Your task to perform on an android device: install app "Expedia: Hotels, Flights & Car" Image 0: 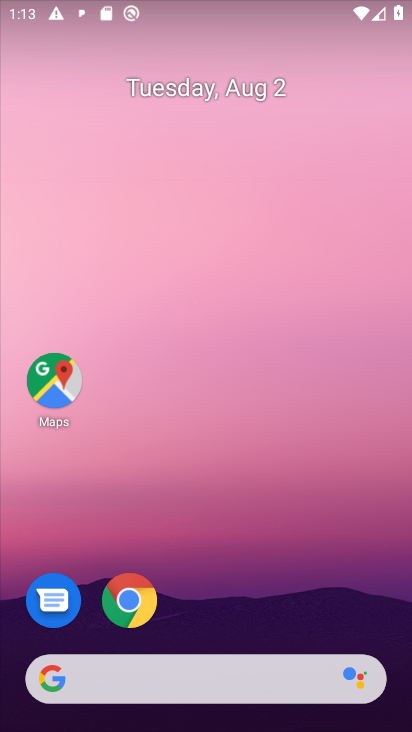
Step 0: drag from (237, 653) to (230, 120)
Your task to perform on an android device: install app "Expedia: Hotels, Flights & Car" Image 1: 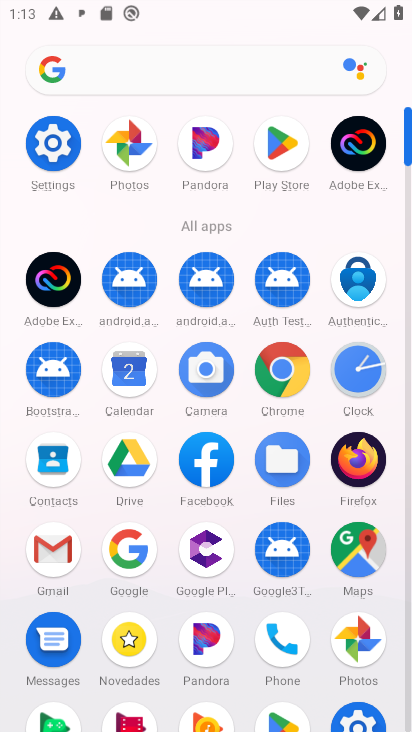
Step 1: click (290, 146)
Your task to perform on an android device: install app "Expedia: Hotels, Flights & Car" Image 2: 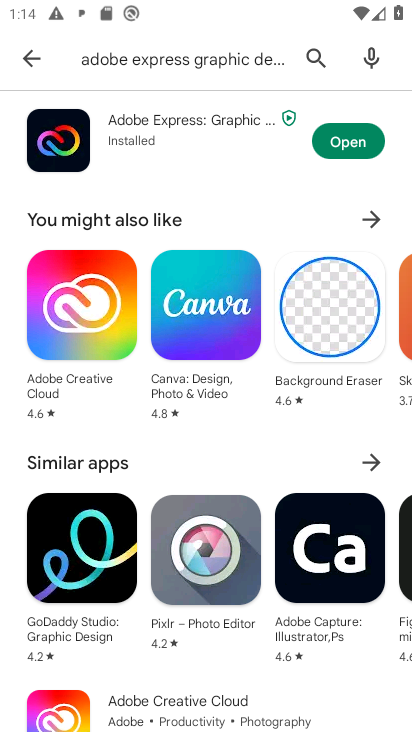
Step 2: click (302, 53)
Your task to perform on an android device: install app "Expedia: Hotels, Flights & Car" Image 3: 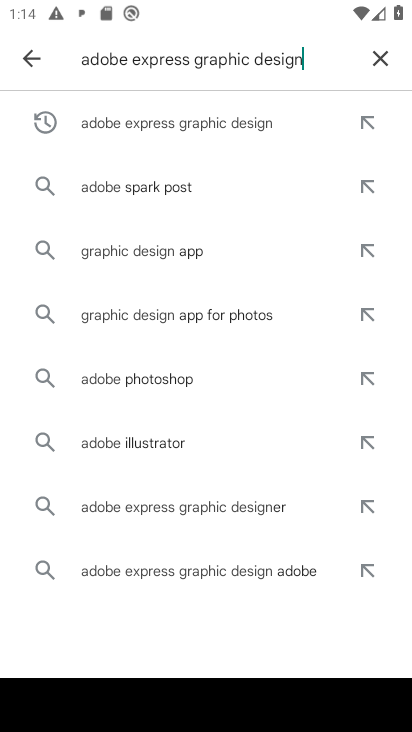
Step 3: click (375, 61)
Your task to perform on an android device: install app "Expedia: Hotels, Flights & Car" Image 4: 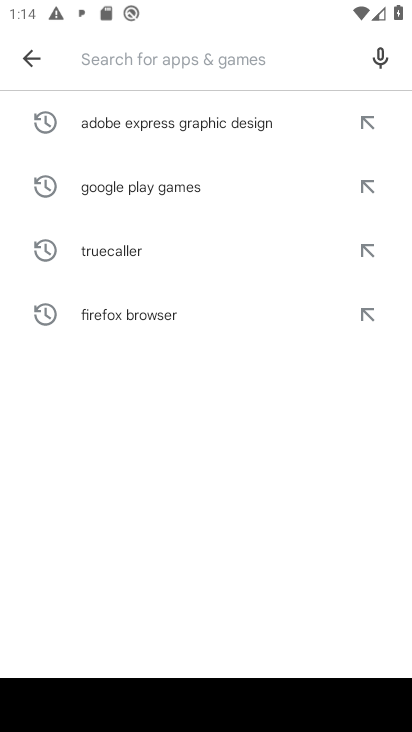
Step 4: type "Expedia: Hotels, Flights & Car"
Your task to perform on an android device: install app "Expedia: Hotels, Flights & Car" Image 5: 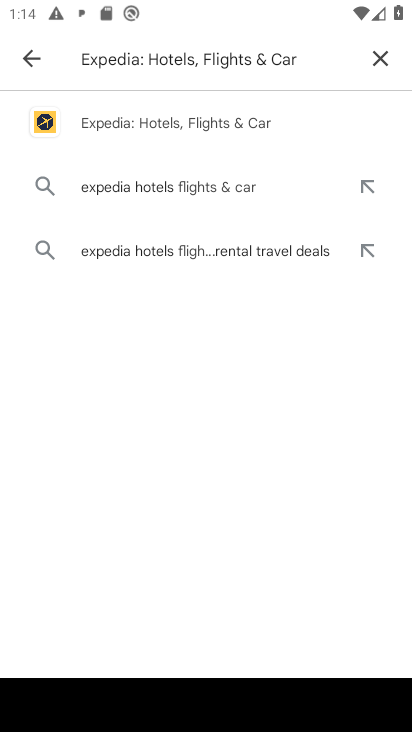
Step 5: click (146, 118)
Your task to perform on an android device: install app "Expedia: Hotels, Flights & Car" Image 6: 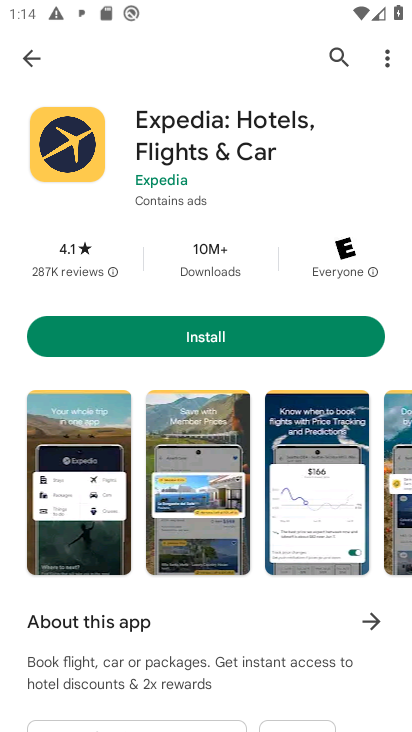
Step 6: click (200, 337)
Your task to perform on an android device: install app "Expedia: Hotels, Flights & Car" Image 7: 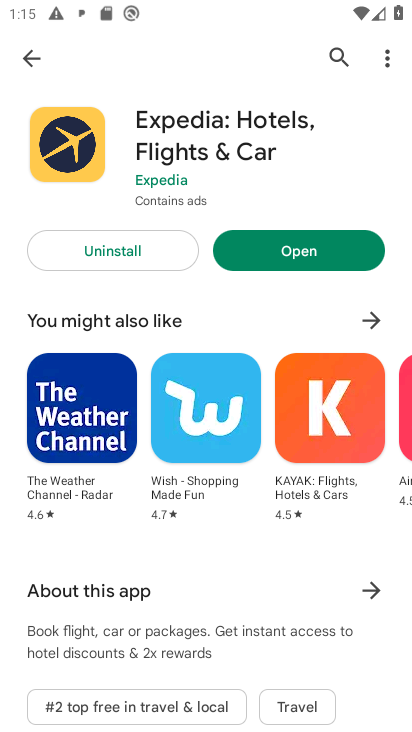
Step 7: click (324, 255)
Your task to perform on an android device: install app "Expedia: Hotels, Flights & Car" Image 8: 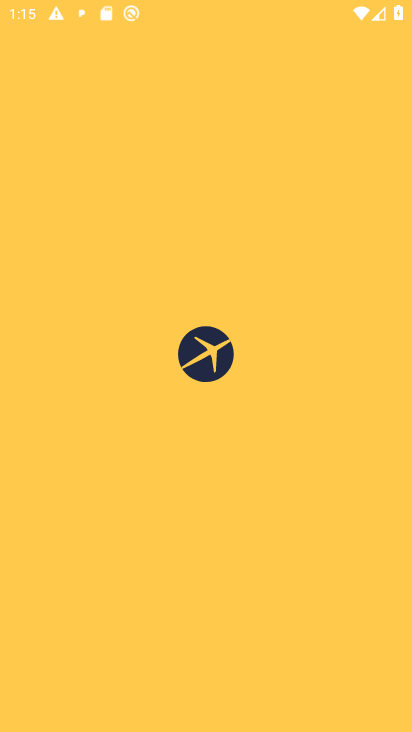
Step 8: task complete